Your task to perform on an android device: Search for vegetarian restaurants on Maps Image 0: 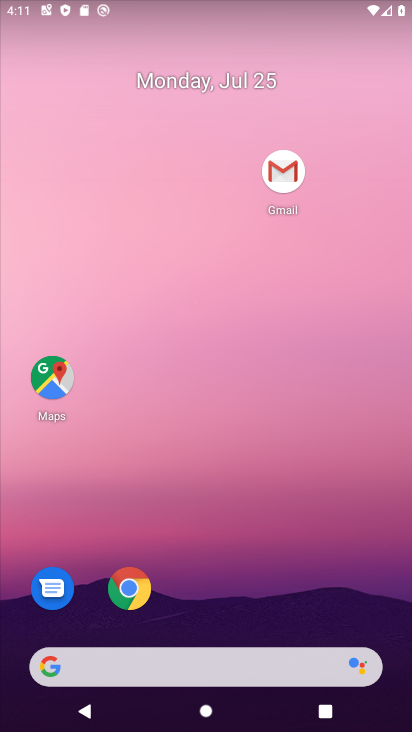
Step 0: drag from (325, 592) to (295, 39)
Your task to perform on an android device: Search for vegetarian restaurants on Maps Image 1: 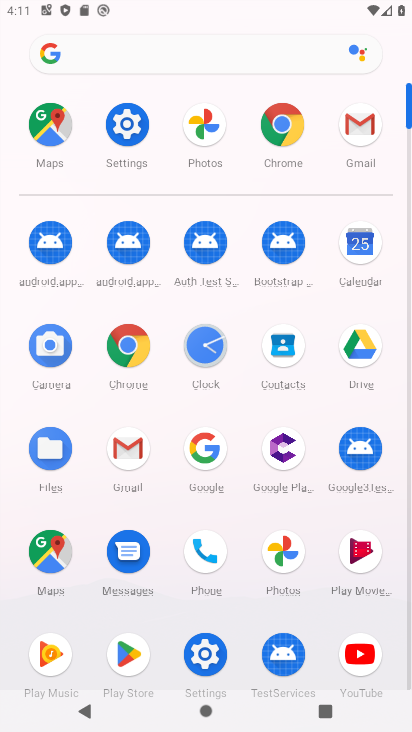
Step 1: click (48, 556)
Your task to perform on an android device: Search for vegetarian restaurants on Maps Image 2: 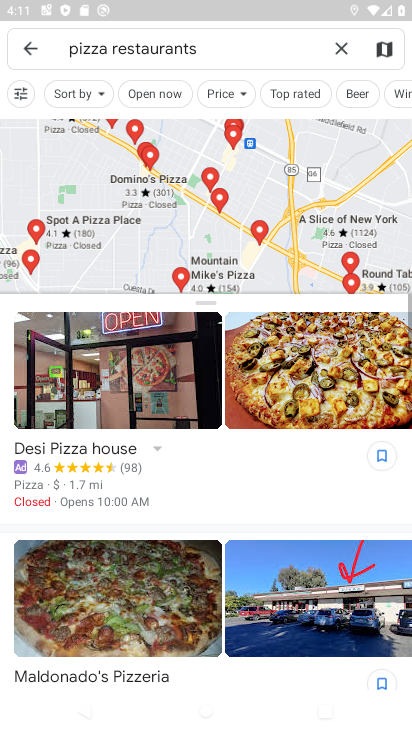
Step 2: click (340, 46)
Your task to perform on an android device: Search for vegetarian restaurants on Maps Image 3: 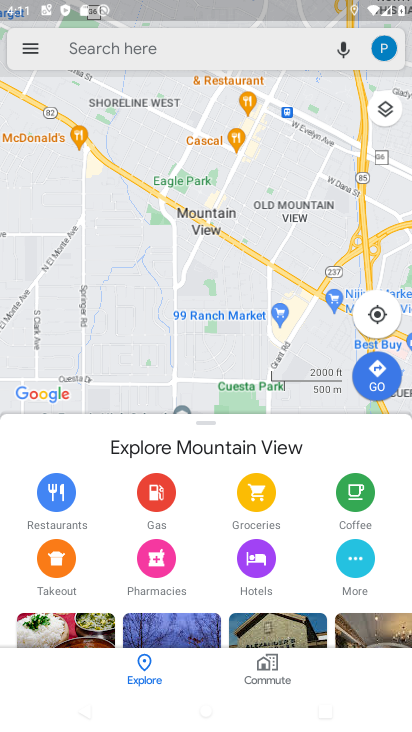
Step 3: click (273, 55)
Your task to perform on an android device: Search for vegetarian restaurants on Maps Image 4: 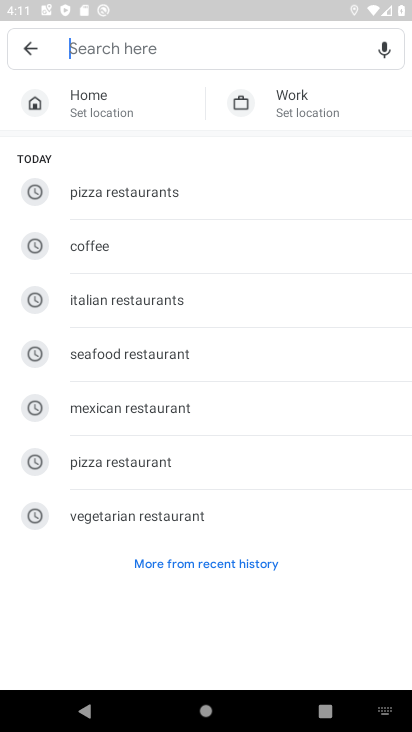
Step 4: type "vegetarian restaurants"
Your task to perform on an android device: Search for vegetarian restaurants on Maps Image 5: 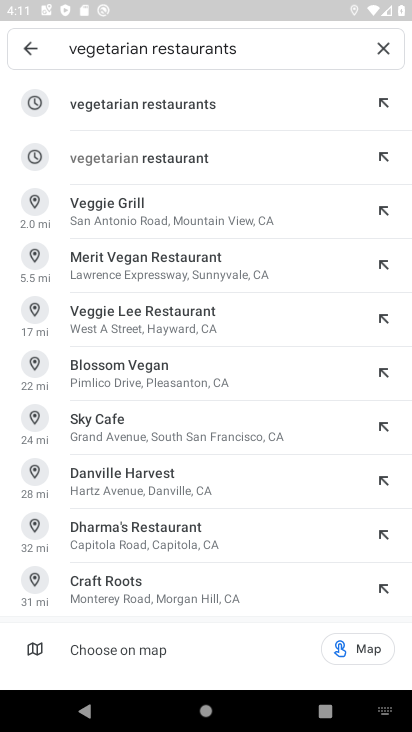
Step 5: click (182, 99)
Your task to perform on an android device: Search for vegetarian restaurants on Maps Image 6: 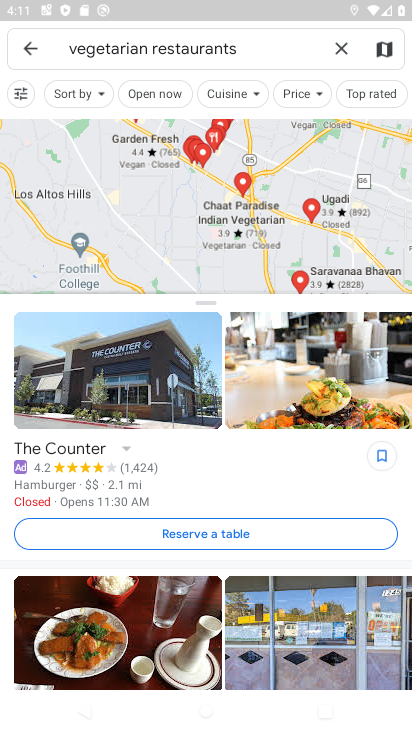
Step 6: task complete